Your task to perform on an android device: Open calendar and show me the first week of next month Image 0: 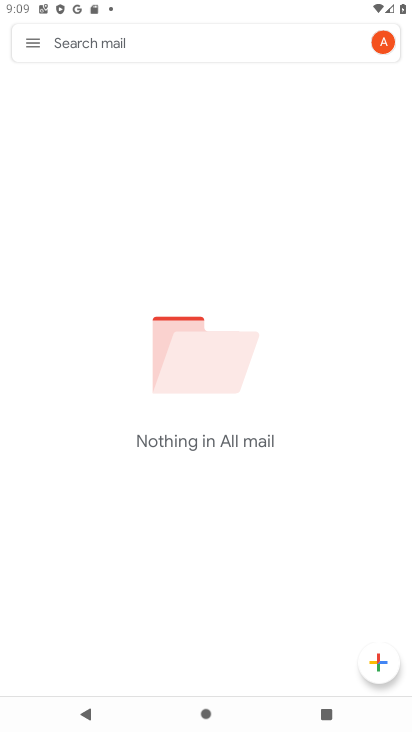
Step 0: press home button
Your task to perform on an android device: Open calendar and show me the first week of next month Image 1: 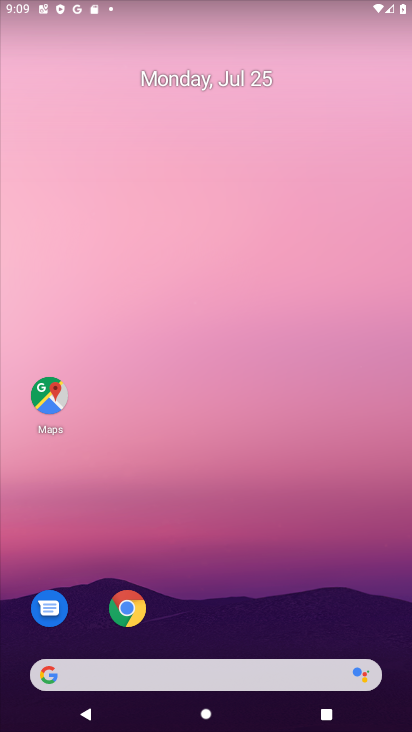
Step 1: drag from (209, 611) to (255, 302)
Your task to perform on an android device: Open calendar and show me the first week of next month Image 2: 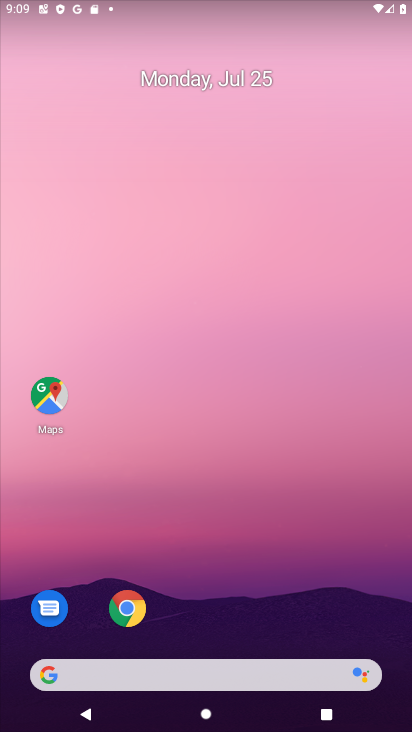
Step 2: click (333, 113)
Your task to perform on an android device: Open calendar and show me the first week of next month Image 3: 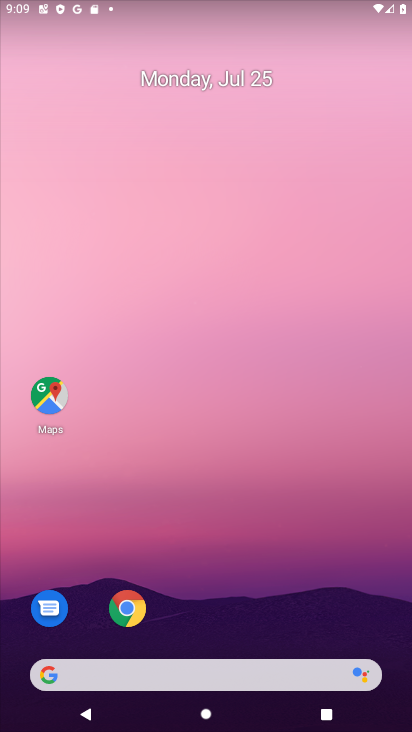
Step 3: drag from (235, 645) to (231, 165)
Your task to perform on an android device: Open calendar and show me the first week of next month Image 4: 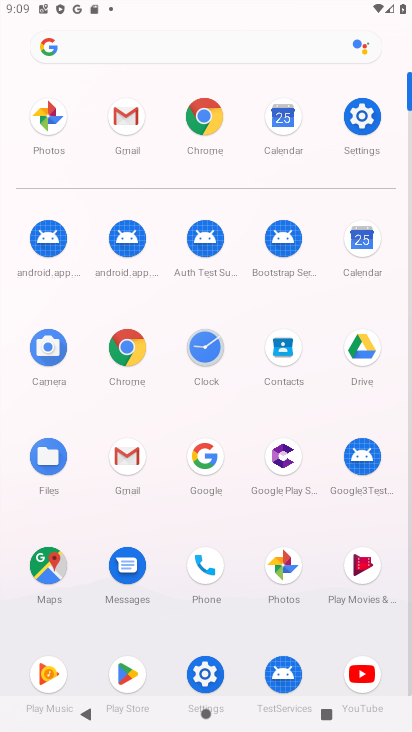
Step 4: click (359, 239)
Your task to perform on an android device: Open calendar and show me the first week of next month Image 5: 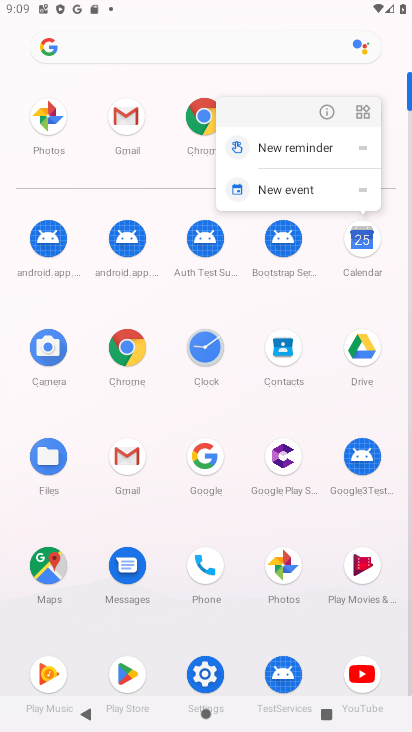
Step 5: click (359, 239)
Your task to perform on an android device: Open calendar and show me the first week of next month Image 6: 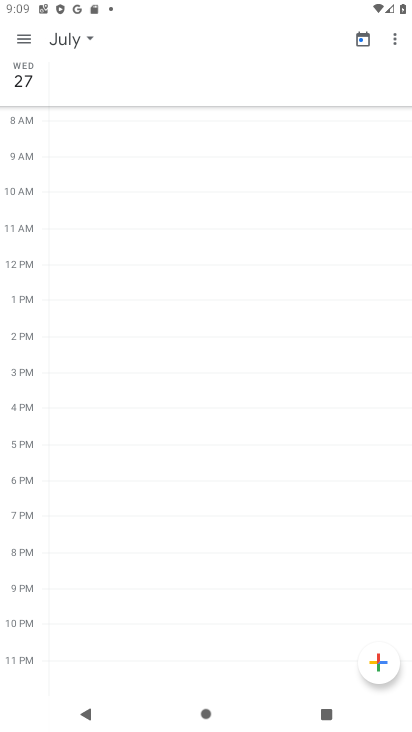
Step 6: click (17, 39)
Your task to perform on an android device: Open calendar and show me the first week of next month Image 7: 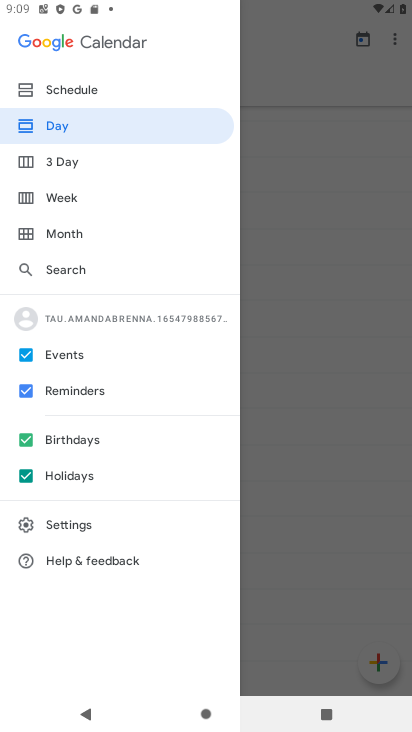
Step 7: click (82, 222)
Your task to perform on an android device: Open calendar and show me the first week of next month Image 8: 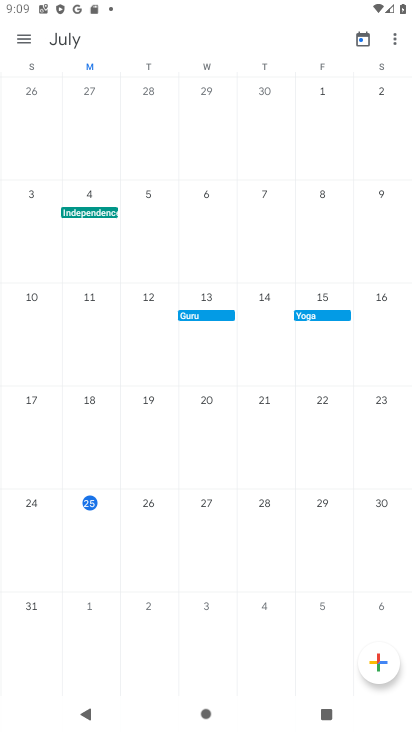
Step 8: drag from (351, 267) to (0, 36)
Your task to perform on an android device: Open calendar and show me the first week of next month Image 9: 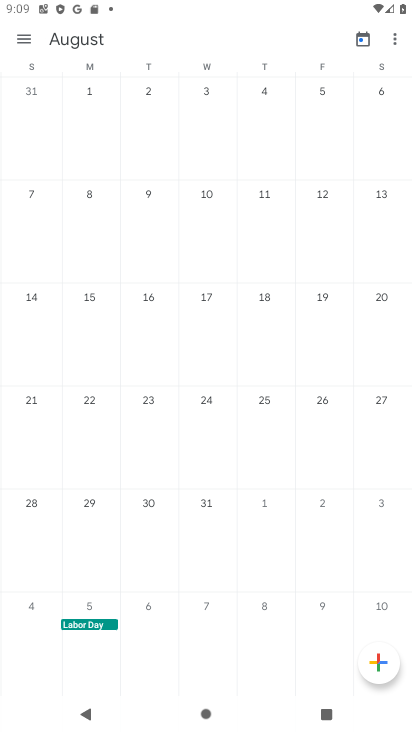
Step 9: click (22, 38)
Your task to perform on an android device: Open calendar and show me the first week of next month Image 10: 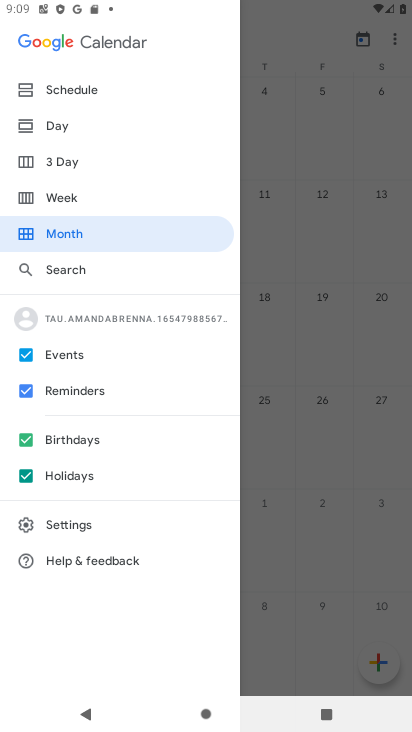
Step 10: click (79, 190)
Your task to perform on an android device: Open calendar and show me the first week of next month Image 11: 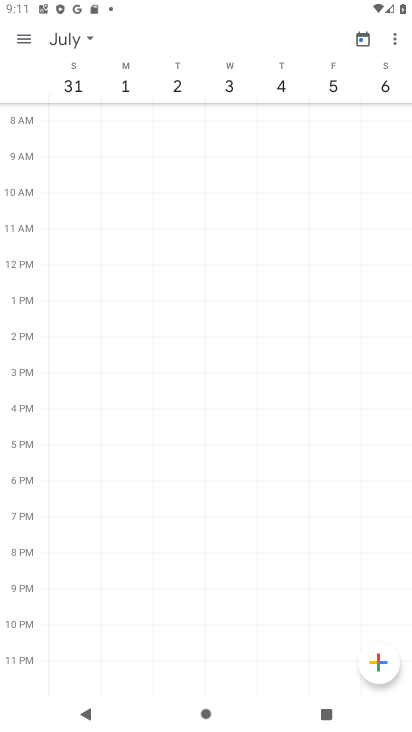
Step 11: task complete